Your task to perform on an android device: open device folders in google photos Image 0: 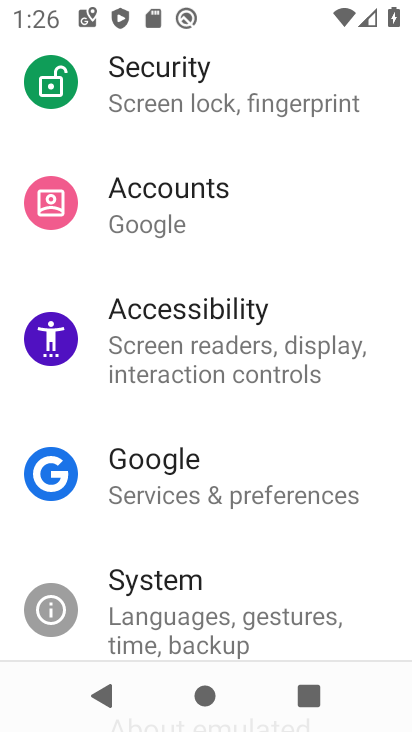
Step 0: press back button
Your task to perform on an android device: open device folders in google photos Image 1: 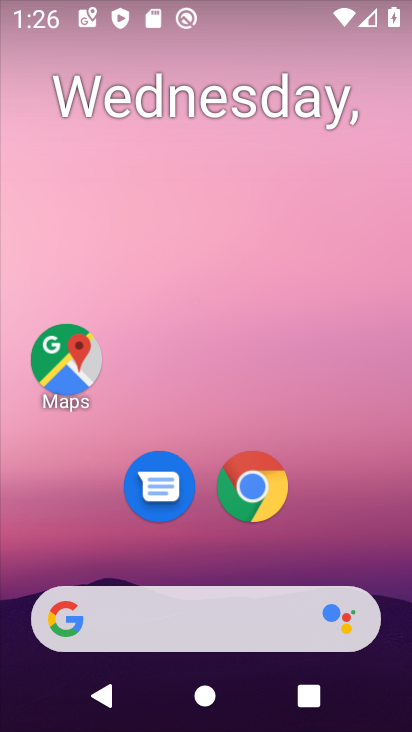
Step 1: drag from (207, 493) to (245, 89)
Your task to perform on an android device: open device folders in google photos Image 2: 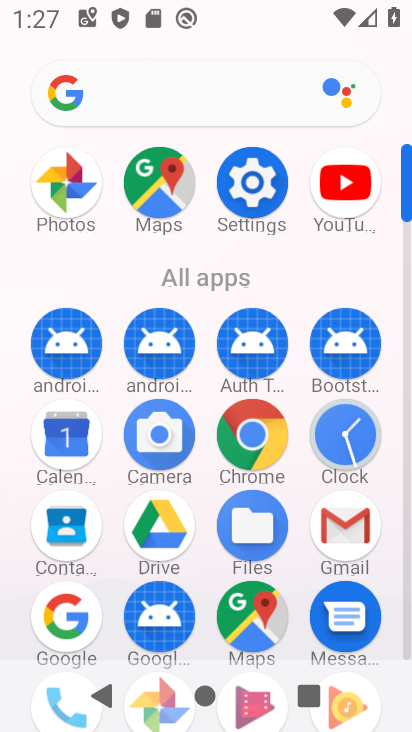
Step 2: drag from (189, 582) to (241, 160)
Your task to perform on an android device: open device folders in google photos Image 3: 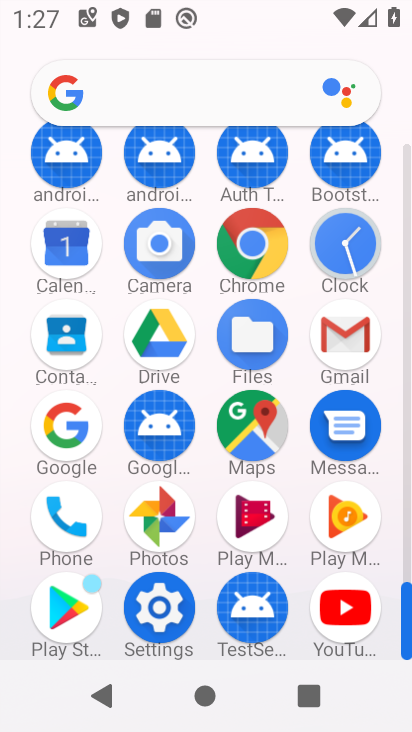
Step 3: click (152, 525)
Your task to perform on an android device: open device folders in google photos Image 4: 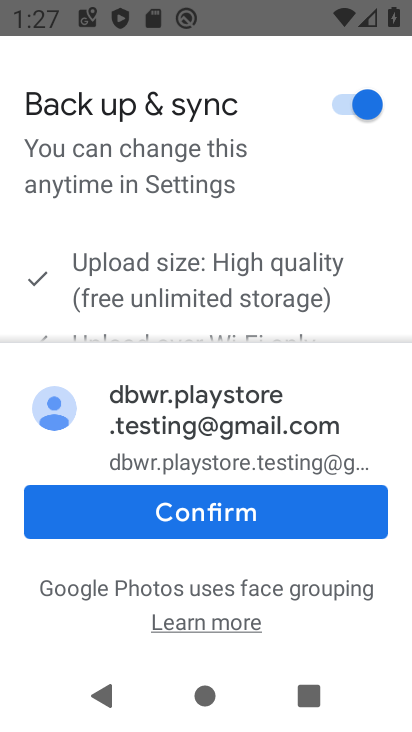
Step 4: click (207, 508)
Your task to perform on an android device: open device folders in google photos Image 5: 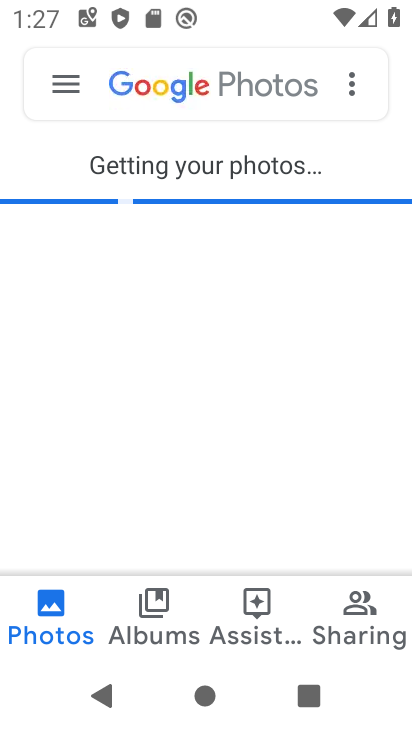
Step 5: click (39, 73)
Your task to perform on an android device: open device folders in google photos Image 6: 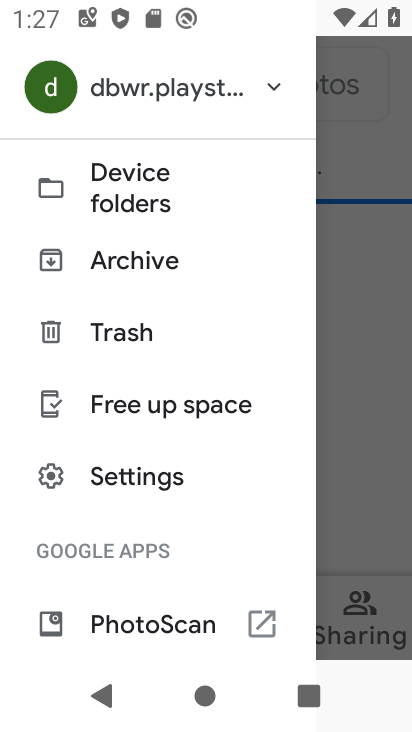
Step 6: click (146, 189)
Your task to perform on an android device: open device folders in google photos Image 7: 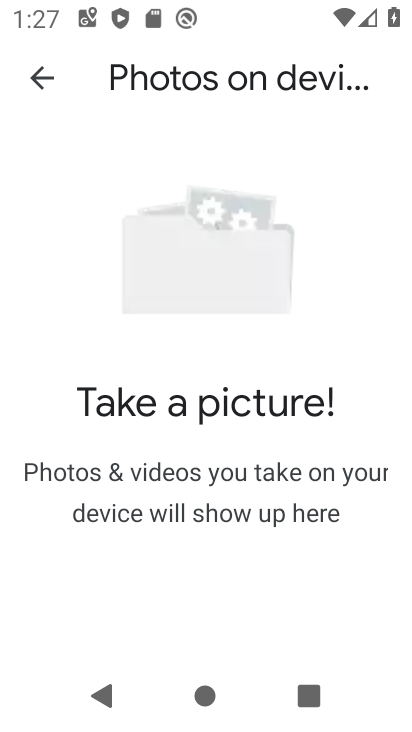
Step 7: task complete